Your task to perform on an android device: Go to display settings Image 0: 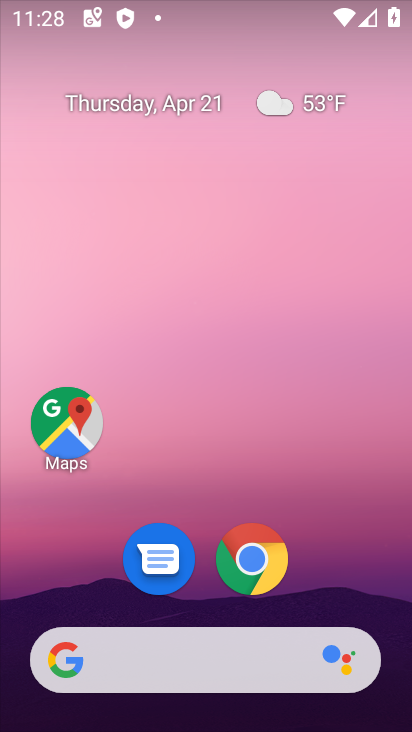
Step 0: drag from (333, 593) to (346, 12)
Your task to perform on an android device: Go to display settings Image 1: 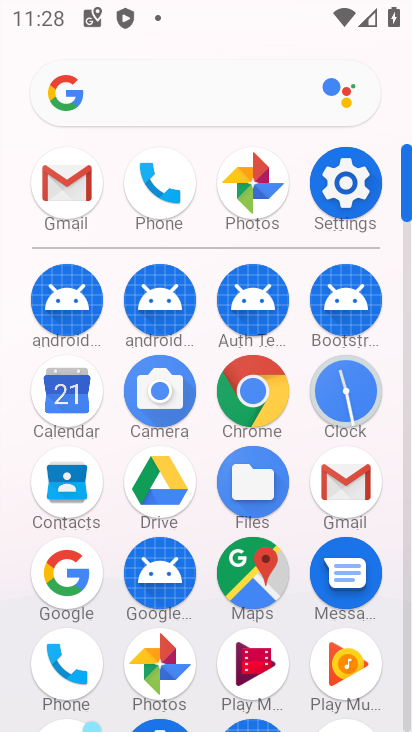
Step 1: click (340, 193)
Your task to perform on an android device: Go to display settings Image 2: 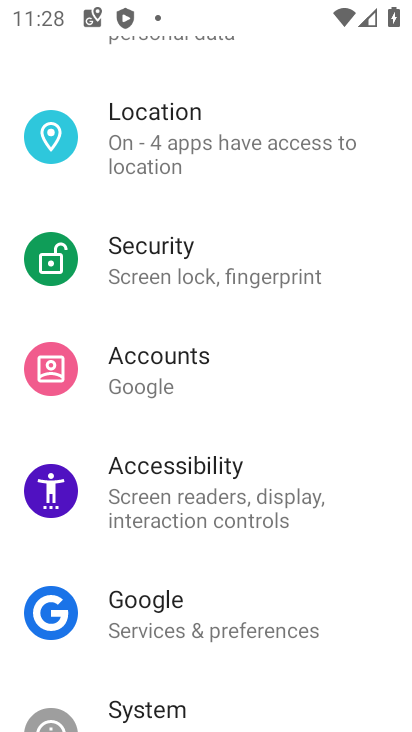
Step 2: drag from (250, 381) to (251, 498)
Your task to perform on an android device: Go to display settings Image 3: 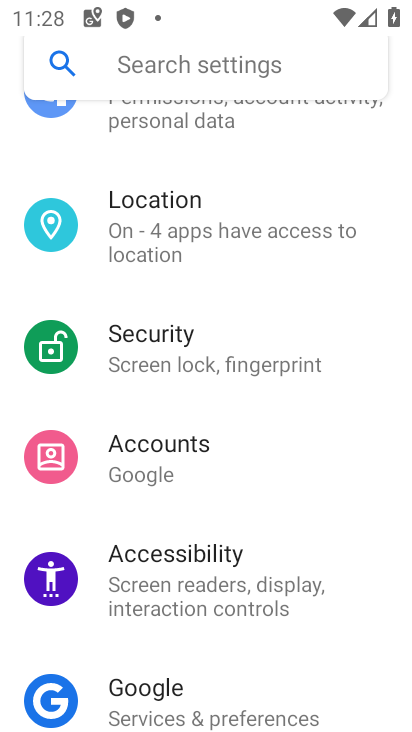
Step 3: drag from (275, 306) to (246, 549)
Your task to perform on an android device: Go to display settings Image 4: 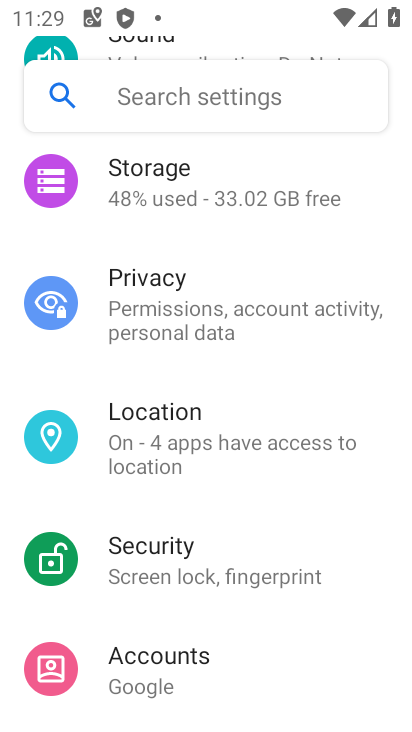
Step 4: drag from (252, 377) to (253, 590)
Your task to perform on an android device: Go to display settings Image 5: 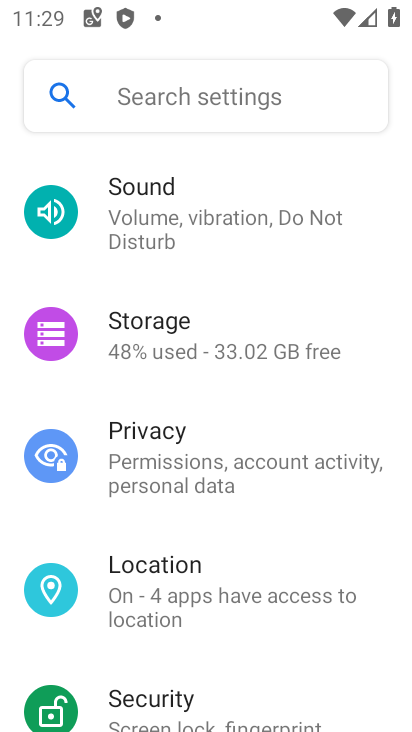
Step 5: drag from (226, 259) to (236, 580)
Your task to perform on an android device: Go to display settings Image 6: 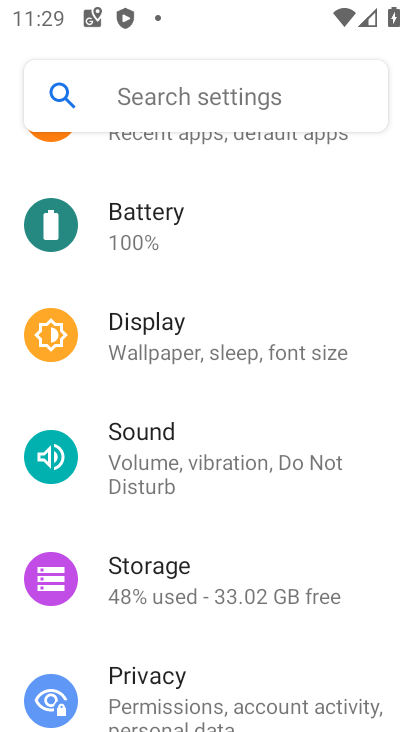
Step 6: click (154, 331)
Your task to perform on an android device: Go to display settings Image 7: 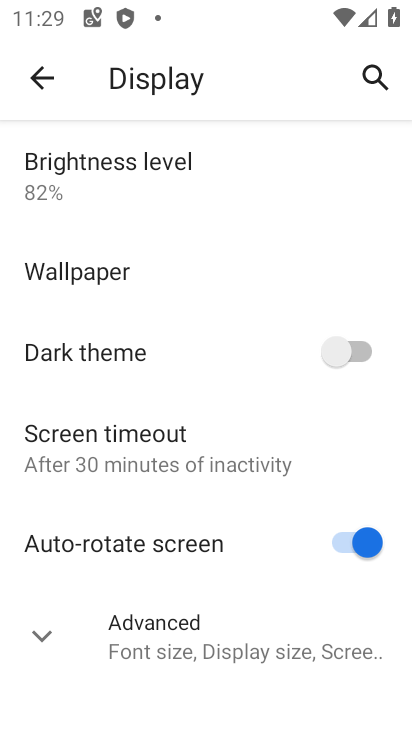
Step 7: click (44, 650)
Your task to perform on an android device: Go to display settings Image 8: 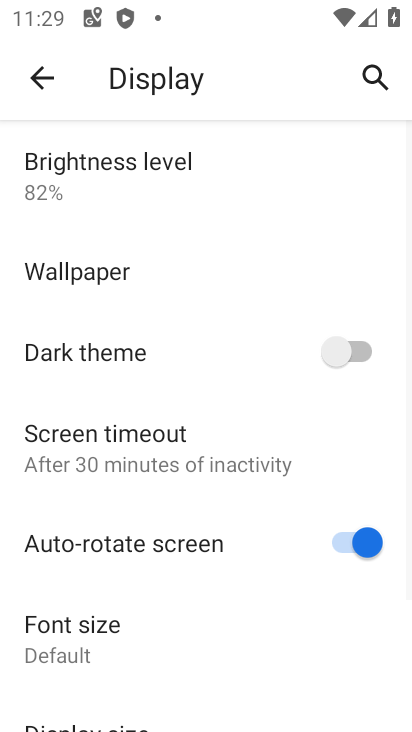
Step 8: task complete